Your task to perform on an android device: Go to internet settings Image 0: 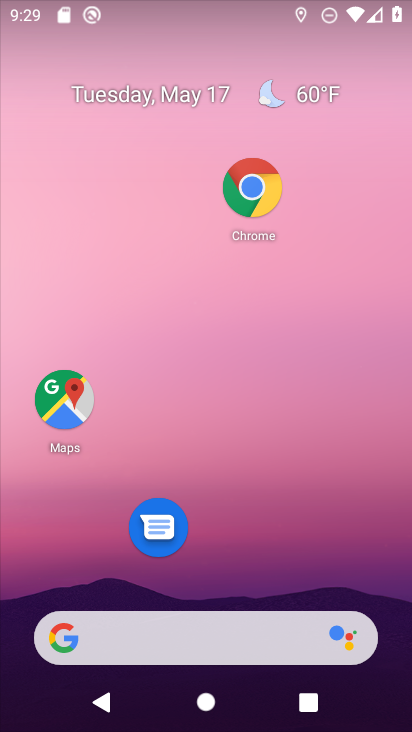
Step 0: drag from (260, 546) to (247, 38)
Your task to perform on an android device: Go to internet settings Image 1: 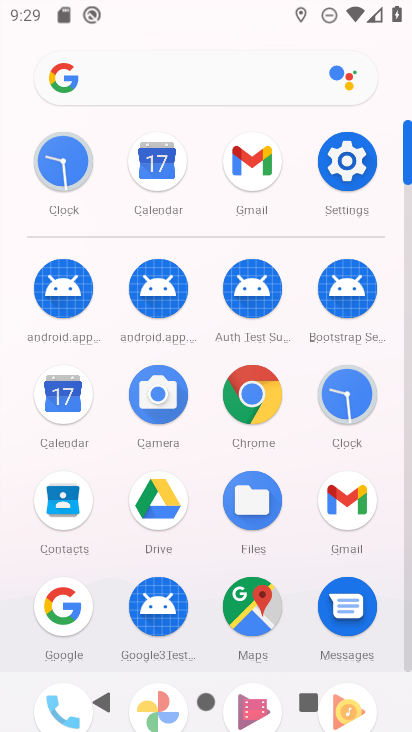
Step 1: click (355, 156)
Your task to perform on an android device: Go to internet settings Image 2: 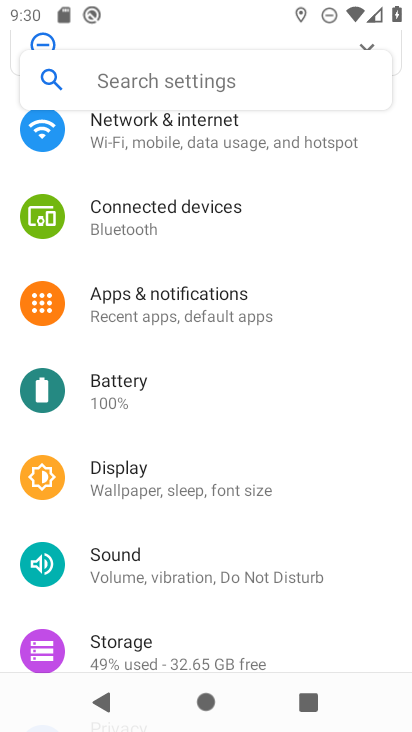
Step 2: click (208, 164)
Your task to perform on an android device: Go to internet settings Image 3: 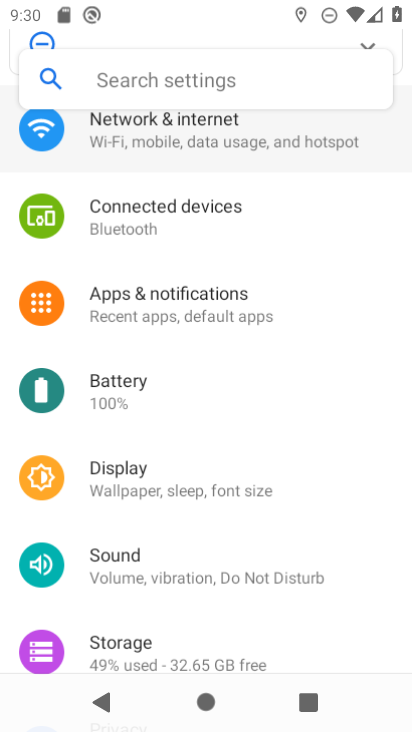
Step 3: task complete